Your task to perform on an android device: Open Android settings Image 0: 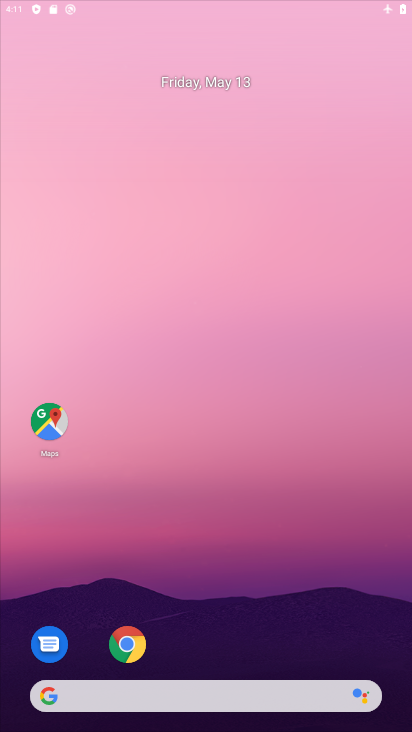
Step 0: click (259, 81)
Your task to perform on an android device: Open Android settings Image 1: 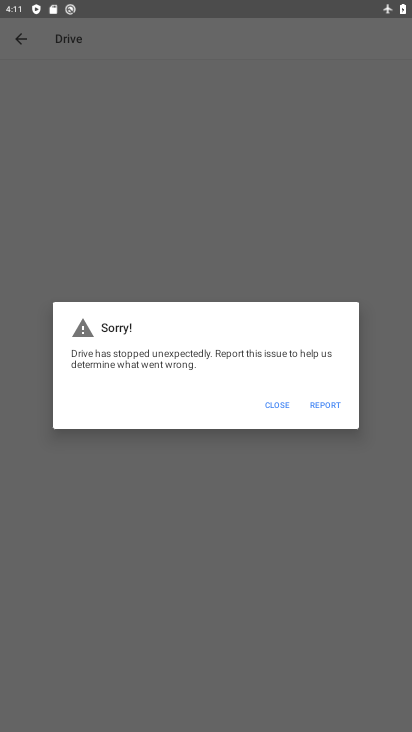
Step 1: click (272, 409)
Your task to perform on an android device: Open Android settings Image 2: 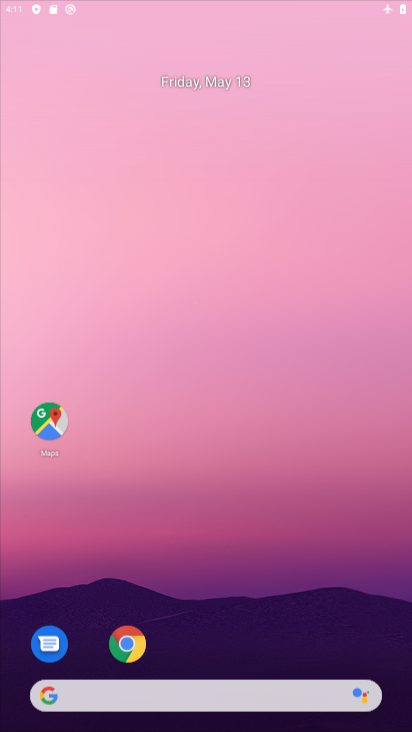
Step 2: press back button
Your task to perform on an android device: Open Android settings Image 3: 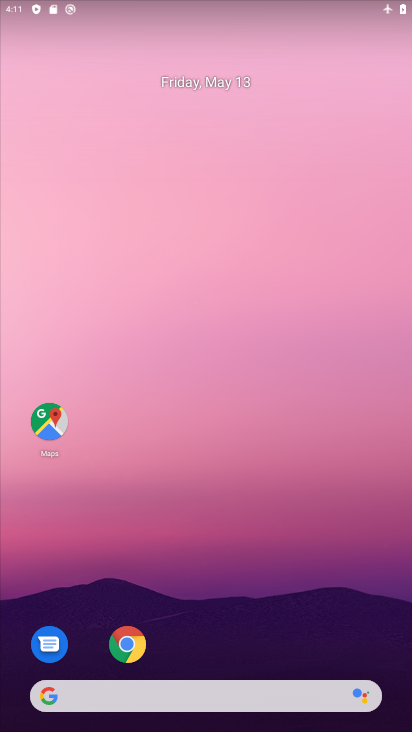
Step 3: drag from (187, 643) to (281, 81)
Your task to perform on an android device: Open Android settings Image 4: 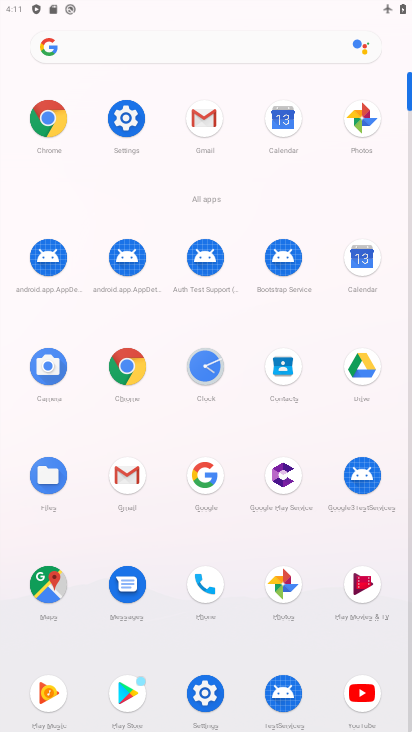
Step 4: click (121, 116)
Your task to perform on an android device: Open Android settings Image 5: 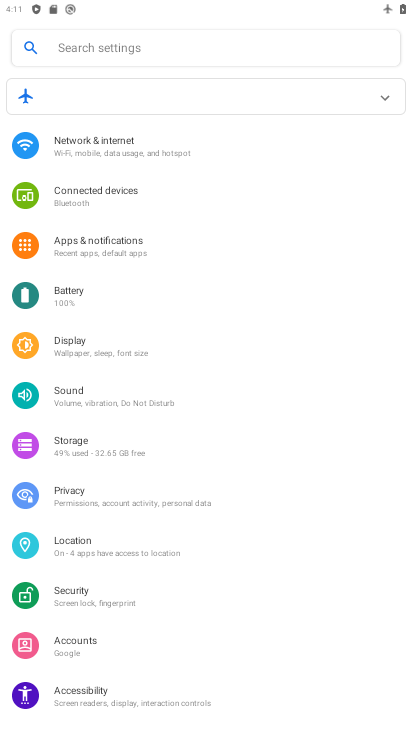
Step 5: drag from (163, 613) to (281, 79)
Your task to perform on an android device: Open Android settings Image 6: 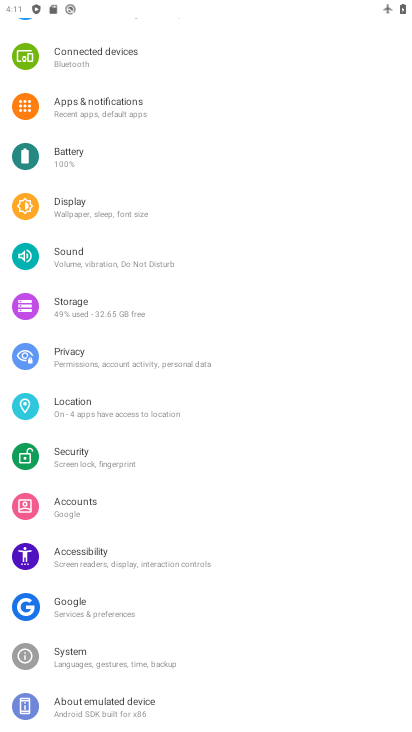
Step 6: drag from (156, 598) to (260, 7)
Your task to perform on an android device: Open Android settings Image 7: 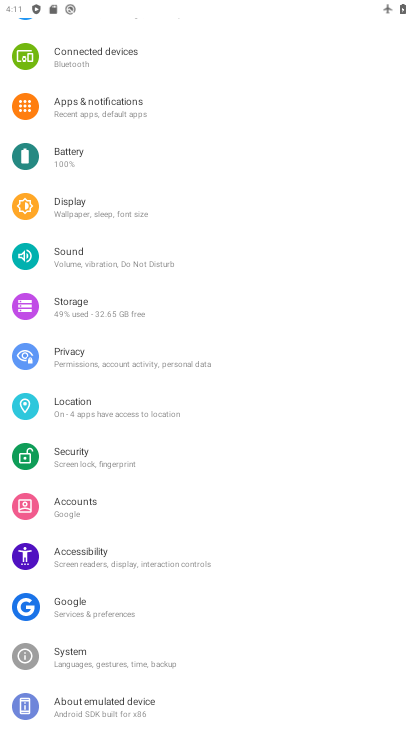
Step 7: click (110, 710)
Your task to perform on an android device: Open Android settings Image 8: 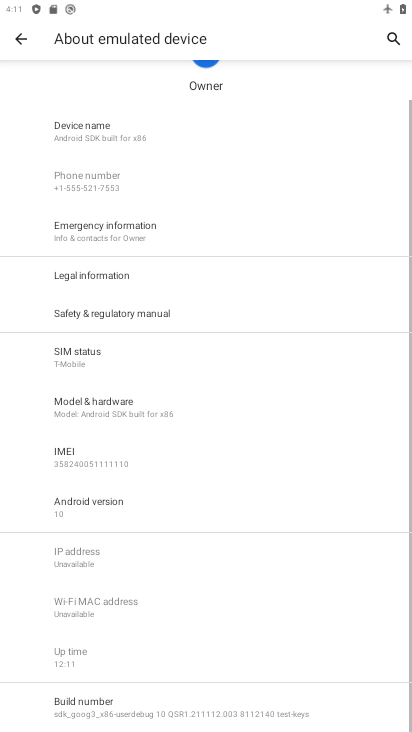
Step 8: click (111, 500)
Your task to perform on an android device: Open Android settings Image 9: 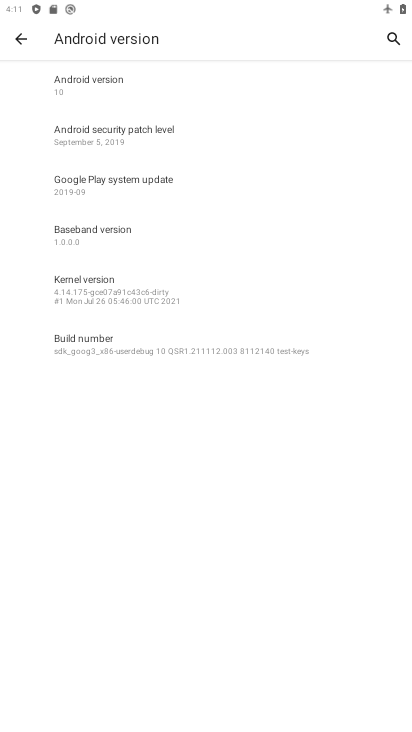
Step 9: click (117, 68)
Your task to perform on an android device: Open Android settings Image 10: 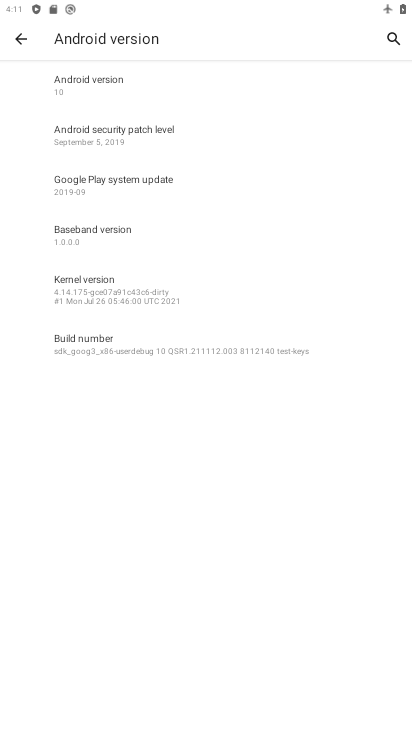
Step 10: click (88, 85)
Your task to perform on an android device: Open Android settings Image 11: 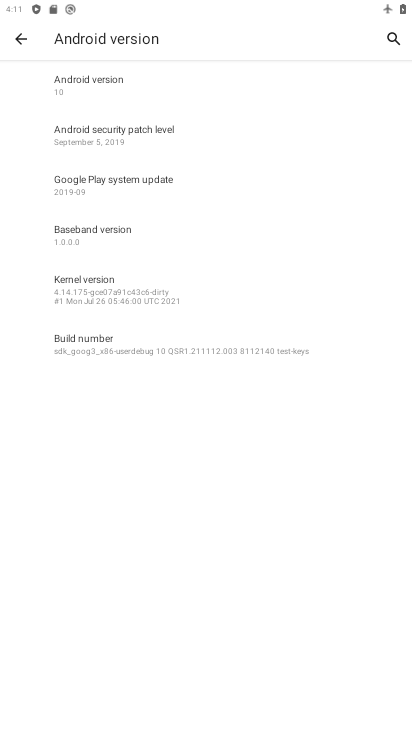
Step 11: task complete